Your task to perform on an android device: Open display settings Image 0: 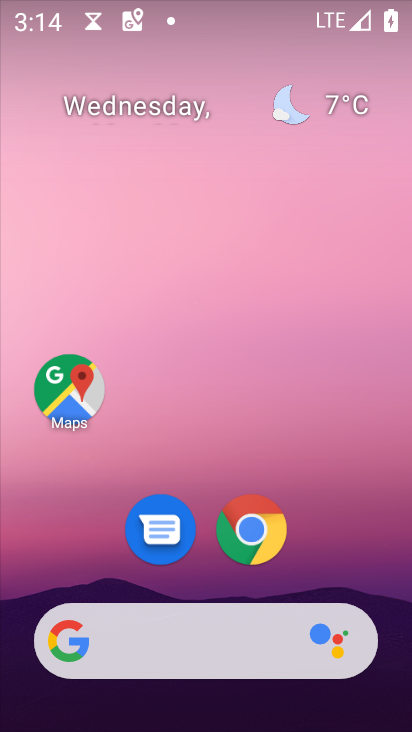
Step 0: drag from (354, 422) to (310, 55)
Your task to perform on an android device: Open display settings Image 1: 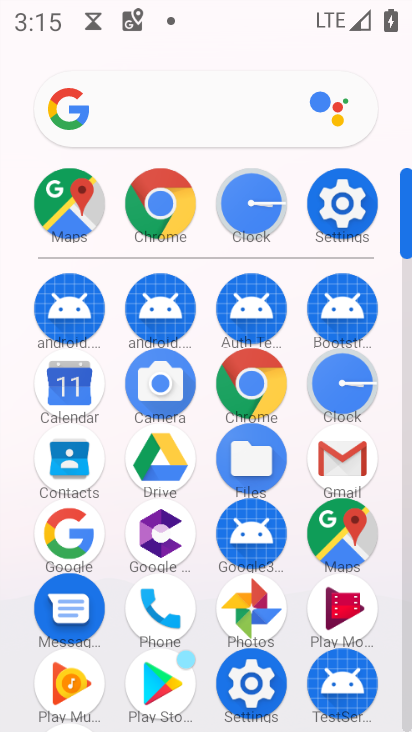
Step 1: click (347, 187)
Your task to perform on an android device: Open display settings Image 2: 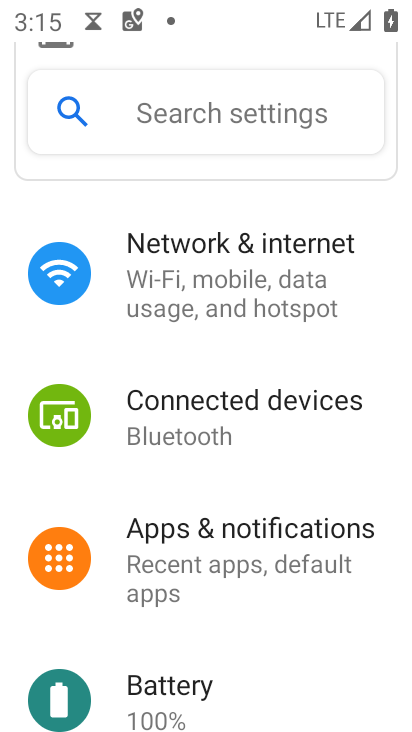
Step 2: drag from (221, 533) to (240, 203)
Your task to perform on an android device: Open display settings Image 3: 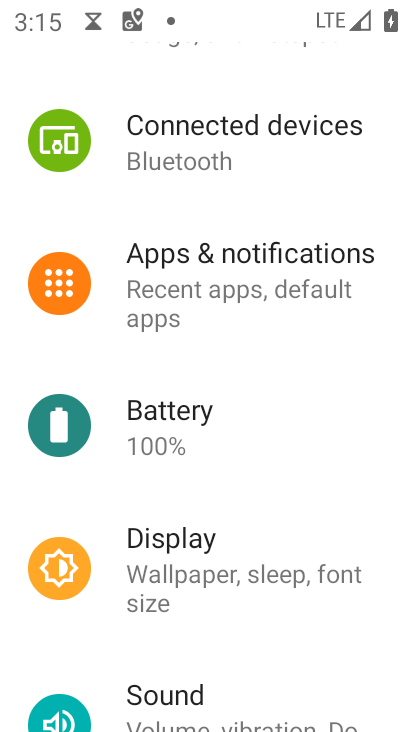
Step 3: click (206, 552)
Your task to perform on an android device: Open display settings Image 4: 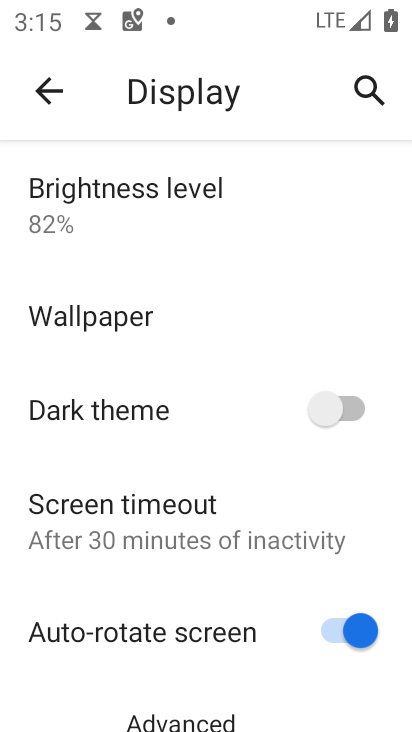
Step 4: task complete